Your task to perform on an android device: Search for pizza restaurants on Maps Image 0: 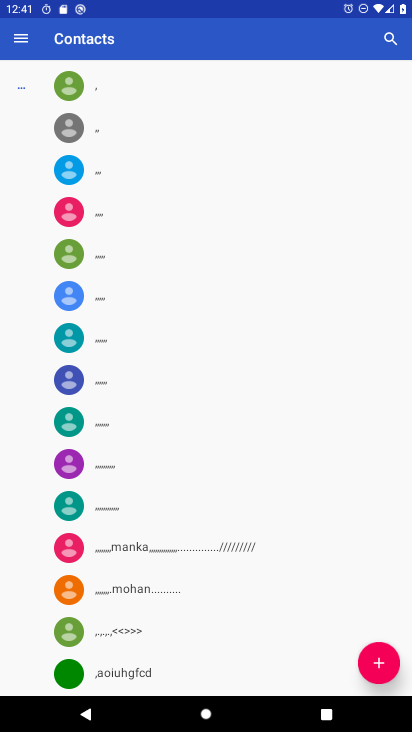
Step 0: press home button
Your task to perform on an android device: Search for pizza restaurants on Maps Image 1: 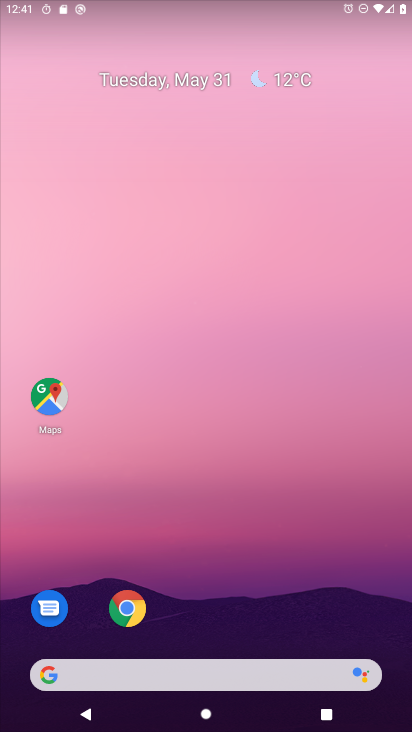
Step 1: click (46, 395)
Your task to perform on an android device: Search for pizza restaurants on Maps Image 2: 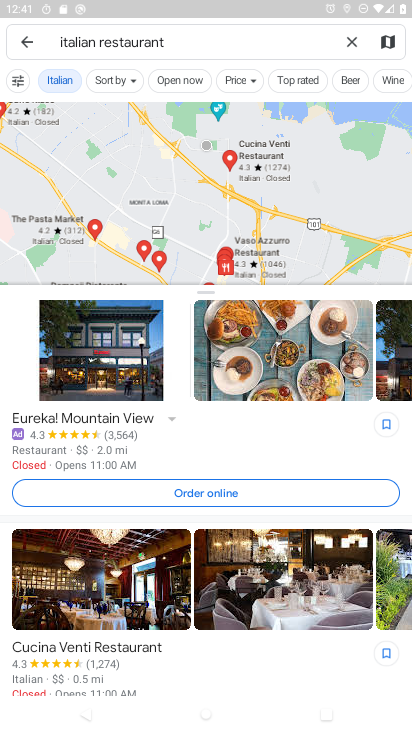
Step 2: click (354, 48)
Your task to perform on an android device: Search for pizza restaurants on Maps Image 3: 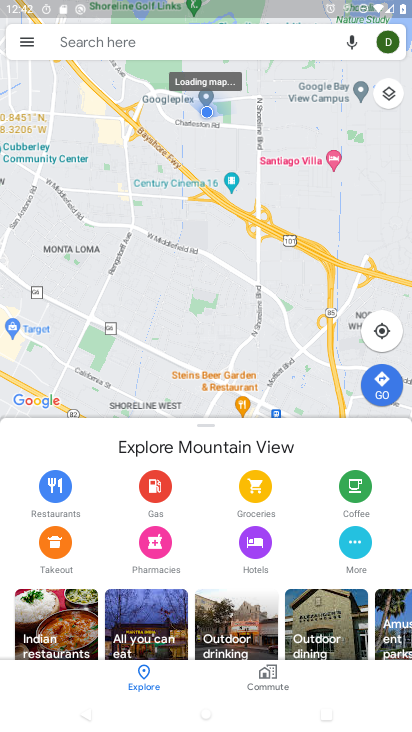
Step 3: click (80, 38)
Your task to perform on an android device: Search for pizza restaurants on Maps Image 4: 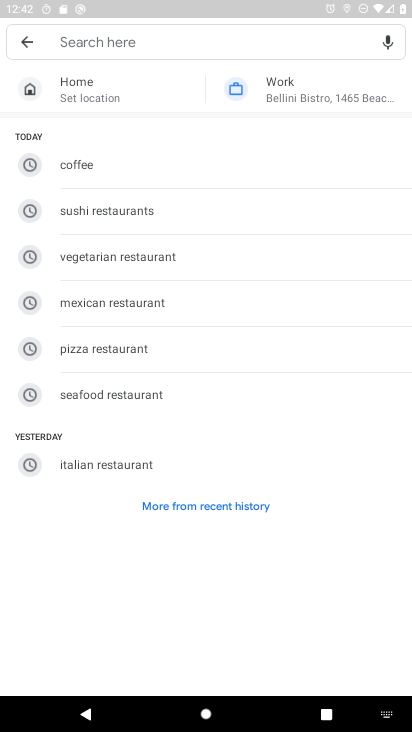
Step 4: type "pizza resturants"
Your task to perform on an android device: Search for pizza restaurants on Maps Image 5: 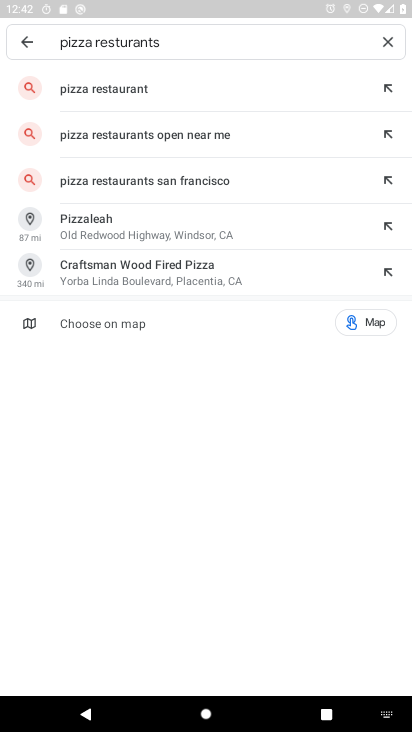
Step 5: click (124, 90)
Your task to perform on an android device: Search for pizza restaurants on Maps Image 6: 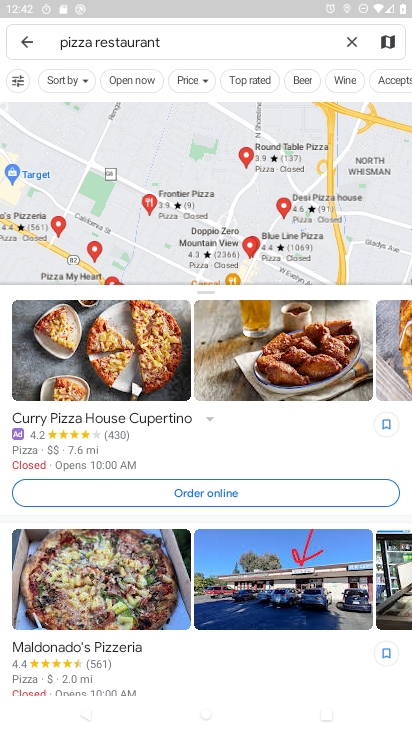
Step 6: task complete